Your task to perform on an android device: Go to display settings Image 0: 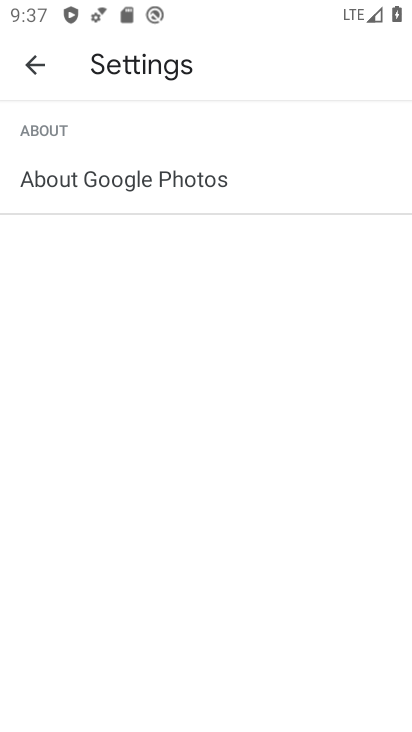
Step 0: press home button
Your task to perform on an android device: Go to display settings Image 1: 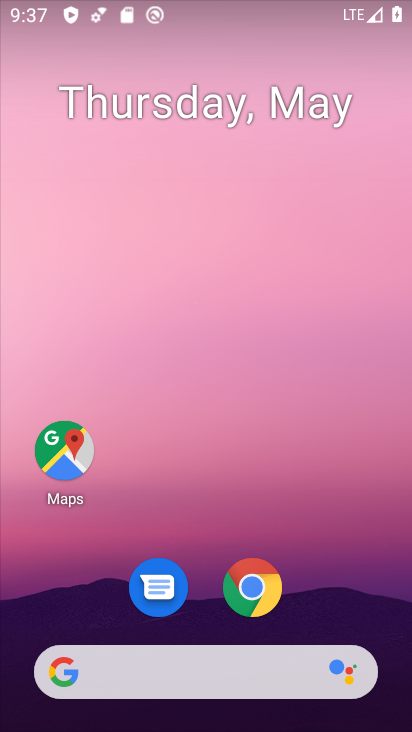
Step 1: drag from (317, 635) to (201, 5)
Your task to perform on an android device: Go to display settings Image 2: 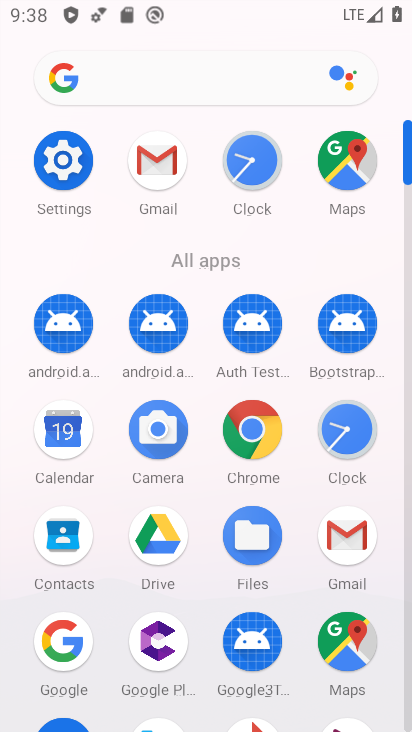
Step 2: click (53, 159)
Your task to perform on an android device: Go to display settings Image 3: 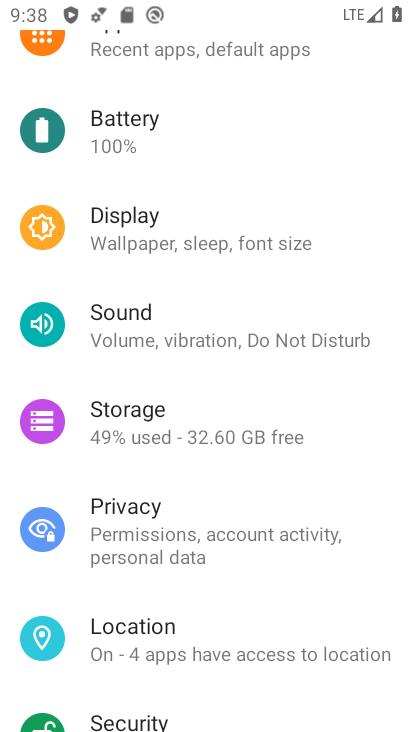
Step 3: click (118, 233)
Your task to perform on an android device: Go to display settings Image 4: 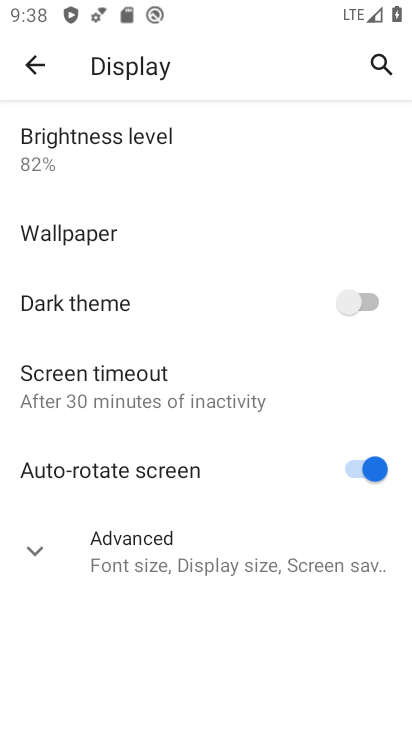
Step 4: task complete